Your task to perform on an android device: Open the stopwatch Image 0: 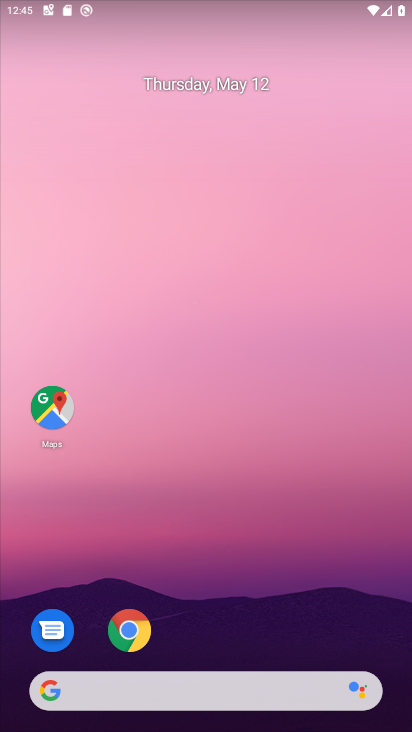
Step 0: drag from (208, 580) to (251, 61)
Your task to perform on an android device: Open the stopwatch Image 1: 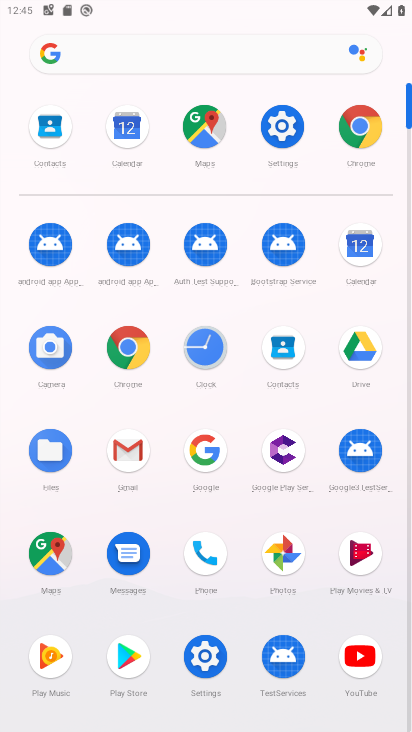
Step 1: click (219, 346)
Your task to perform on an android device: Open the stopwatch Image 2: 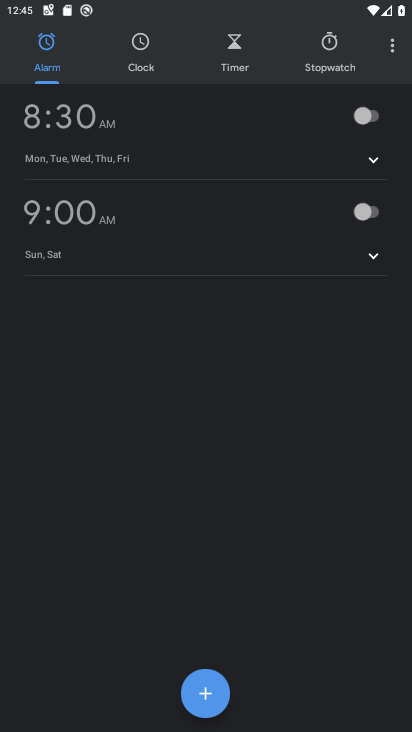
Step 2: click (335, 59)
Your task to perform on an android device: Open the stopwatch Image 3: 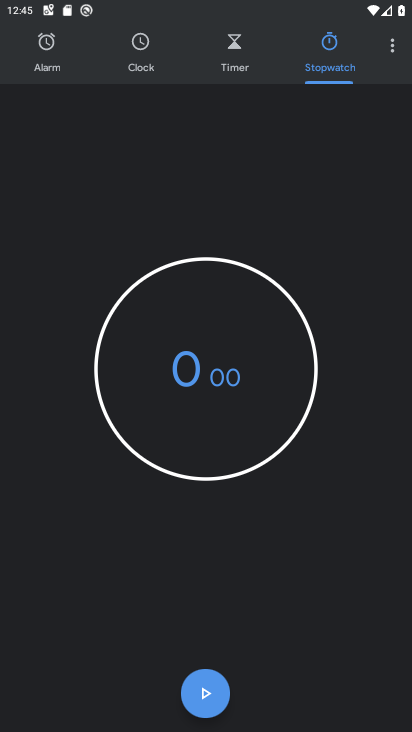
Step 3: click (218, 697)
Your task to perform on an android device: Open the stopwatch Image 4: 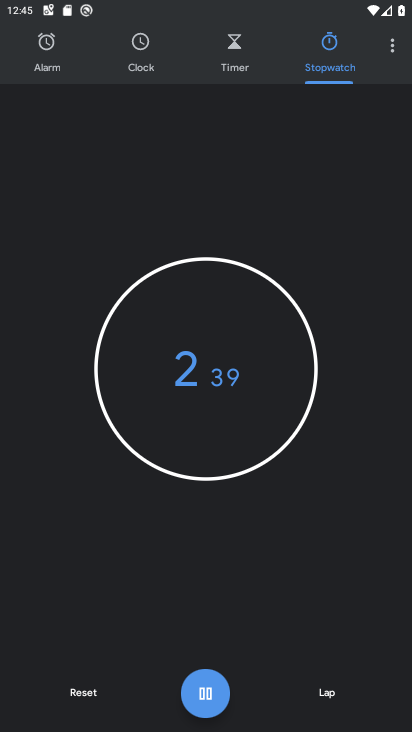
Step 4: task complete